Your task to perform on an android device: toggle data saver in the chrome app Image 0: 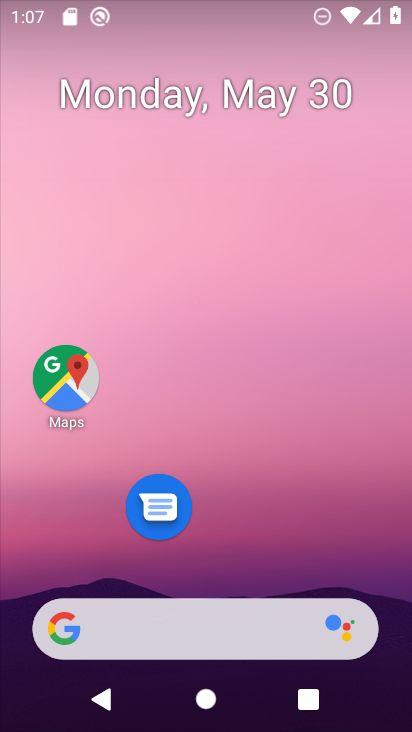
Step 0: drag from (242, 576) to (297, 113)
Your task to perform on an android device: toggle data saver in the chrome app Image 1: 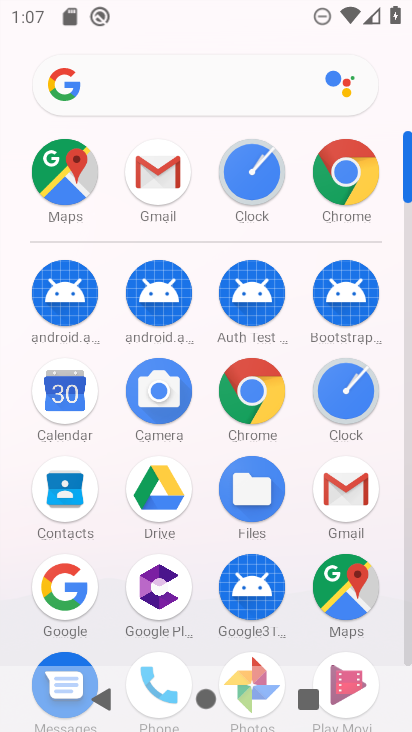
Step 1: click (246, 384)
Your task to perform on an android device: toggle data saver in the chrome app Image 2: 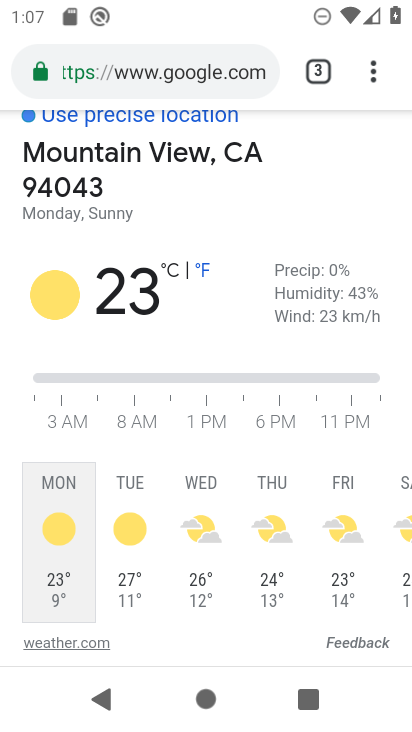
Step 2: click (373, 75)
Your task to perform on an android device: toggle data saver in the chrome app Image 3: 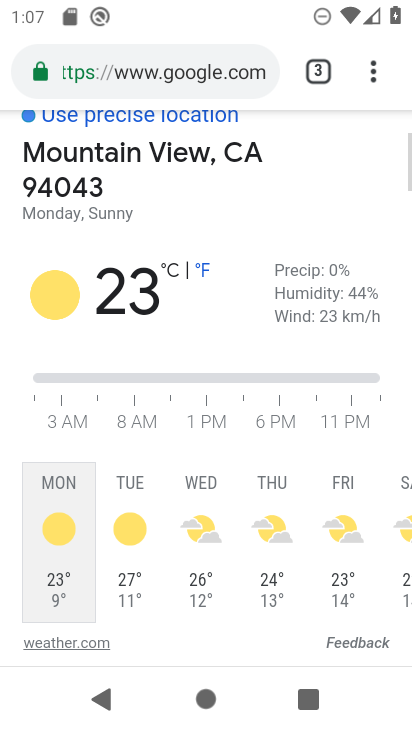
Step 3: drag from (375, 75) to (154, 510)
Your task to perform on an android device: toggle data saver in the chrome app Image 4: 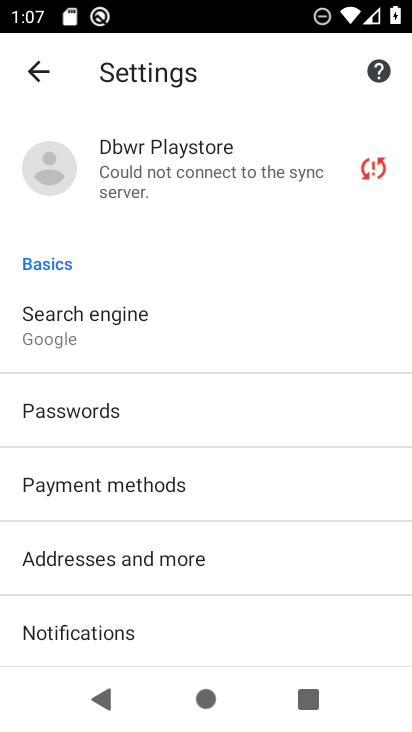
Step 4: drag from (252, 578) to (299, 234)
Your task to perform on an android device: toggle data saver in the chrome app Image 5: 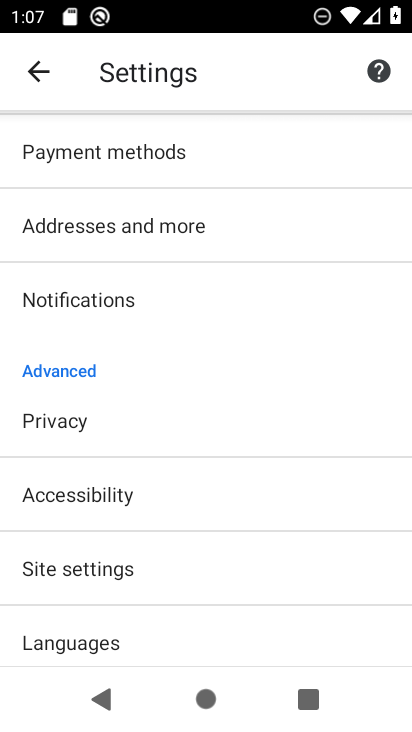
Step 5: click (148, 562)
Your task to perform on an android device: toggle data saver in the chrome app Image 6: 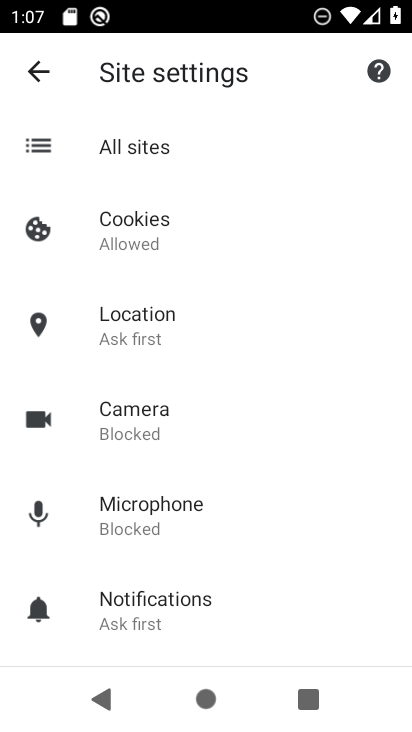
Step 6: click (35, 60)
Your task to perform on an android device: toggle data saver in the chrome app Image 7: 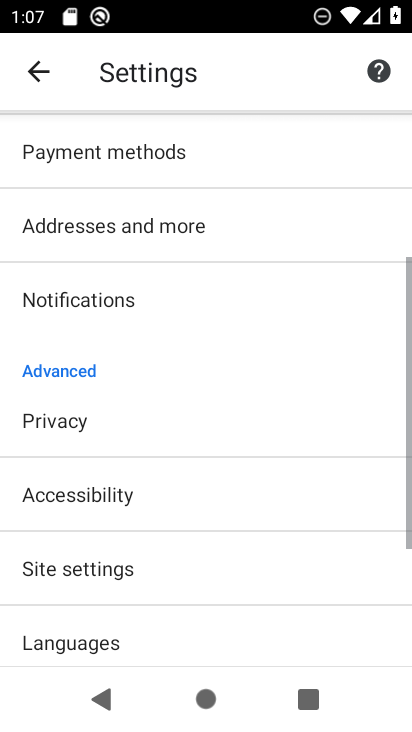
Step 7: drag from (251, 593) to (312, 220)
Your task to perform on an android device: toggle data saver in the chrome app Image 8: 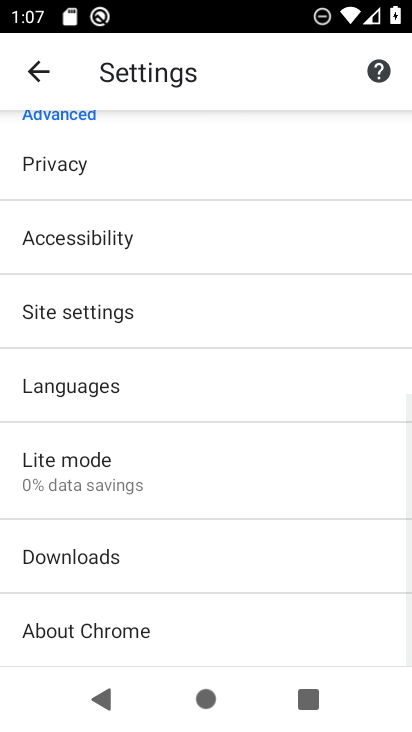
Step 8: click (88, 475)
Your task to perform on an android device: toggle data saver in the chrome app Image 9: 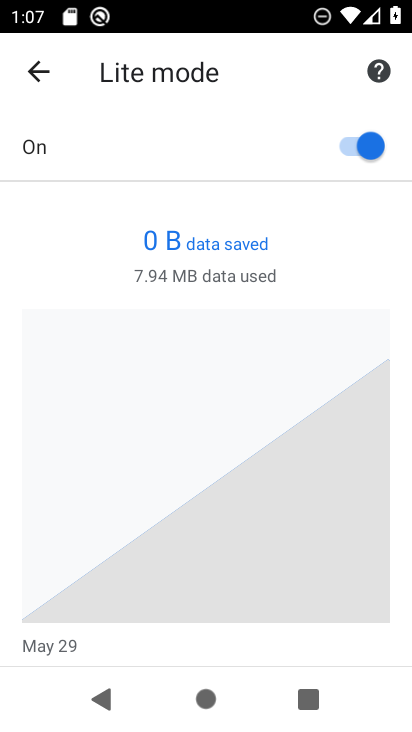
Step 9: click (353, 151)
Your task to perform on an android device: toggle data saver in the chrome app Image 10: 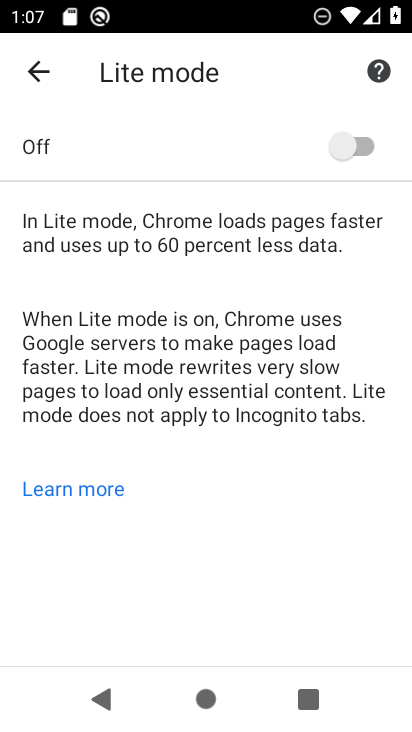
Step 10: task complete